Your task to perform on an android device: open sync settings in chrome Image 0: 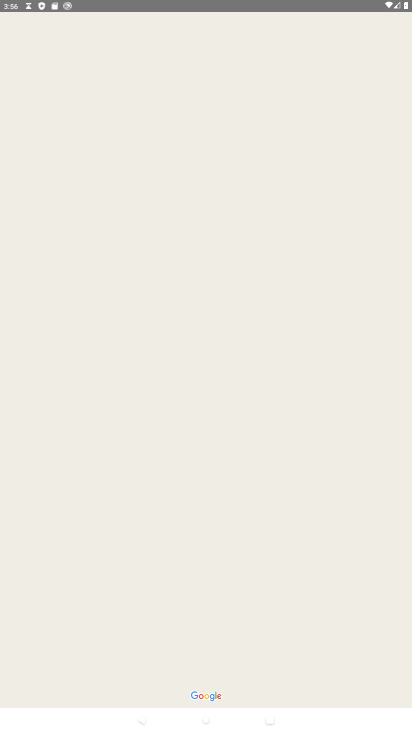
Step 0: press home button
Your task to perform on an android device: open sync settings in chrome Image 1: 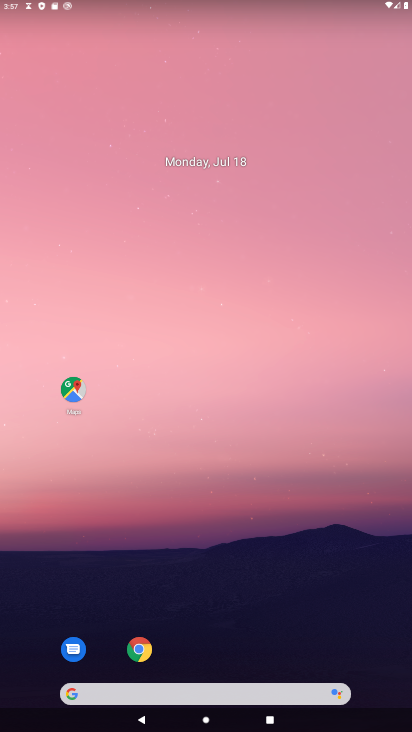
Step 1: press home button
Your task to perform on an android device: open sync settings in chrome Image 2: 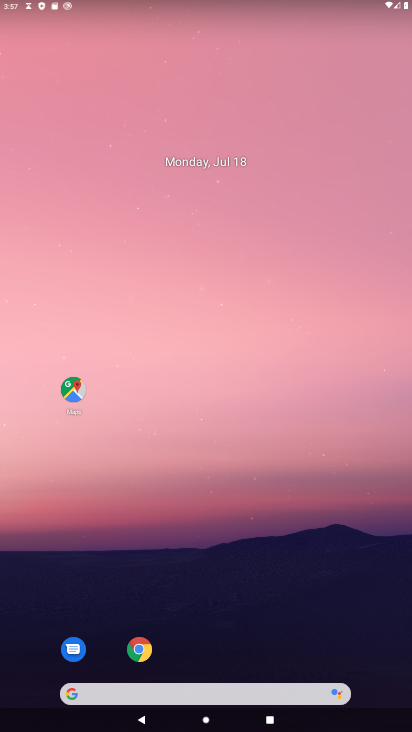
Step 2: click (144, 648)
Your task to perform on an android device: open sync settings in chrome Image 3: 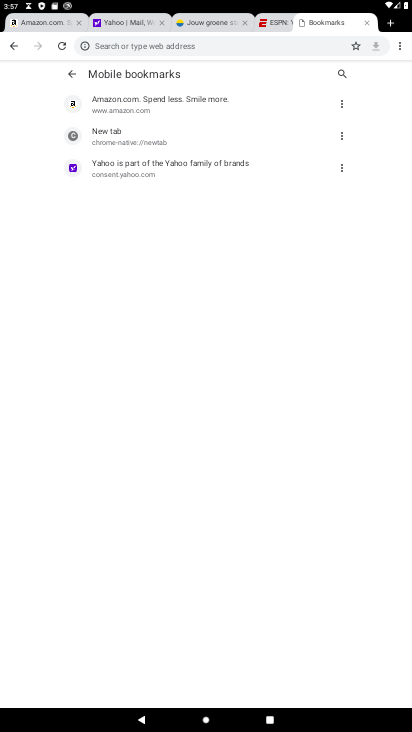
Step 3: drag from (391, 41) to (317, 250)
Your task to perform on an android device: open sync settings in chrome Image 4: 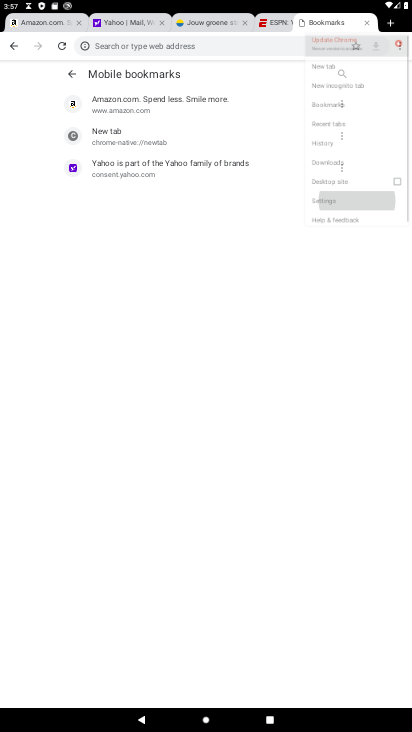
Step 4: click (307, 242)
Your task to perform on an android device: open sync settings in chrome Image 5: 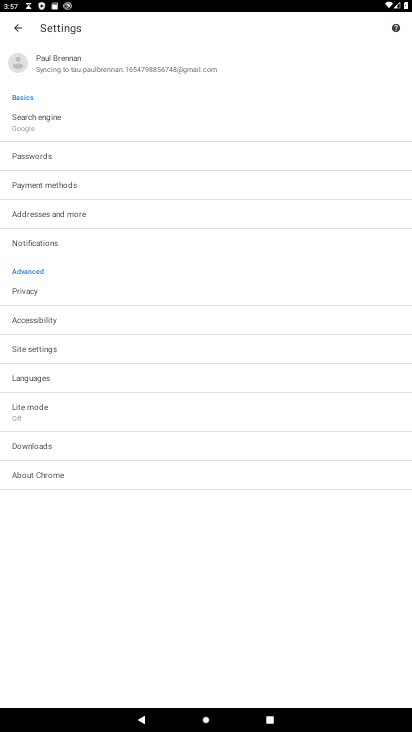
Step 5: click (43, 351)
Your task to perform on an android device: open sync settings in chrome Image 6: 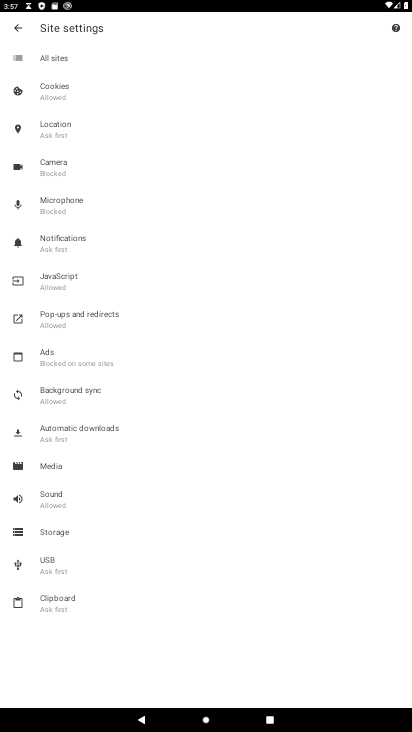
Step 6: click (107, 399)
Your task to perform on an android device: open sync settings in chrome Image 7: 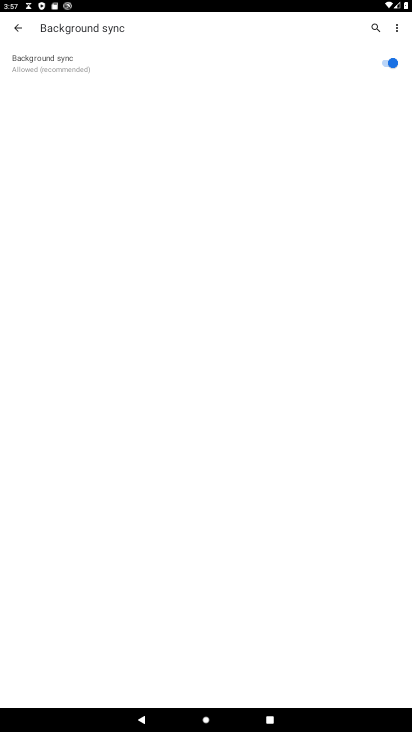
Step 7: task complete